Your task to perform on an android device: open app "Facebook" (install if not already installed) and enter user name: "resultants@gmail.com" and password: "earned" Image 0: 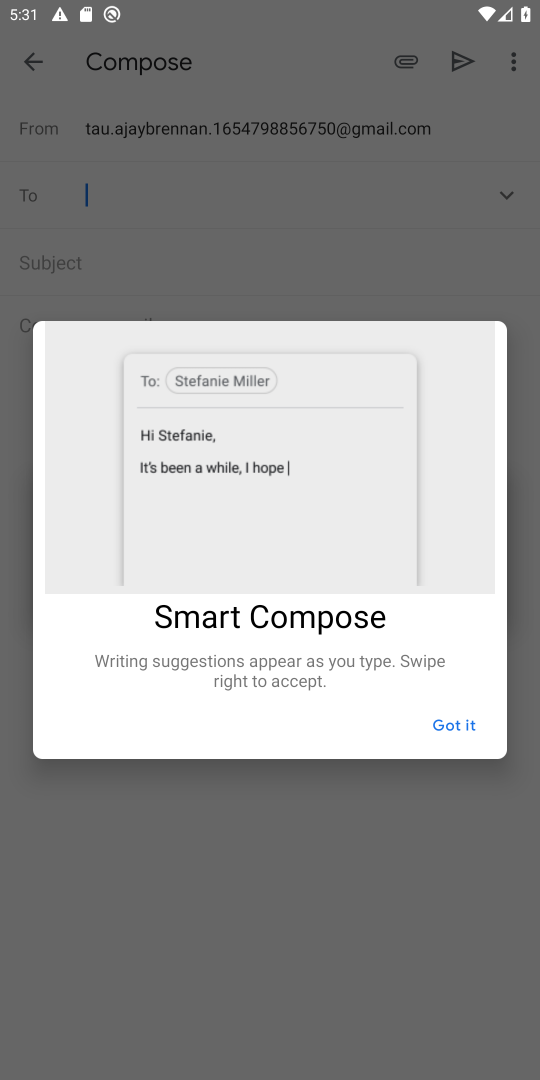
Step 0: press home button
Your task to perform on an android device: open app "Facebook" (install if not already installed) and enter user name: "resultants@gmail.com" and password: "earned" Image 1: 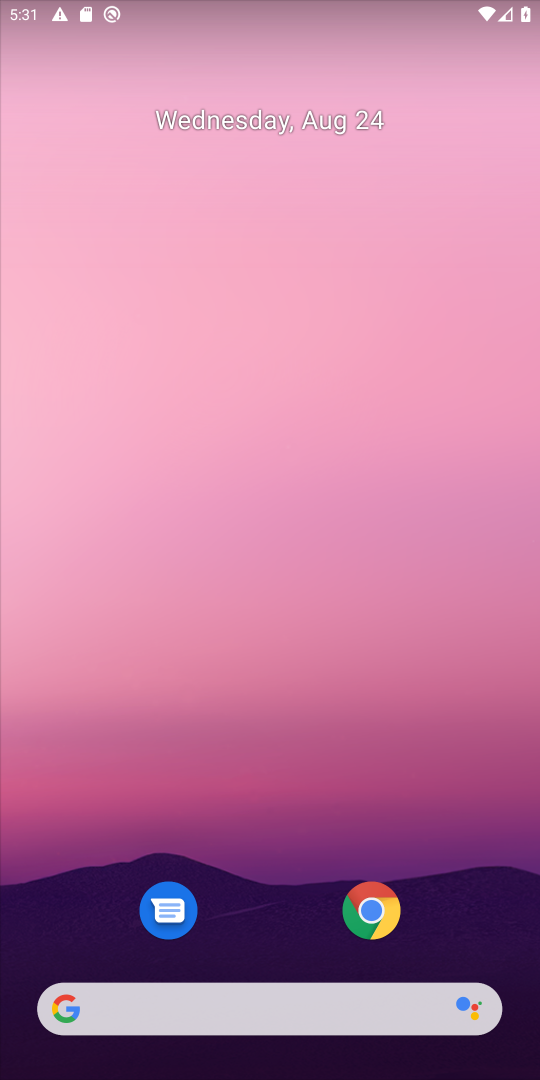
Step 1: drag from (285, 1039) to (261, 286)
Your task to perform on an android device: open app "Facebook" (install if not already installed) and enter user name: "resultants@gmail.com" and password: "earned" Image 2: 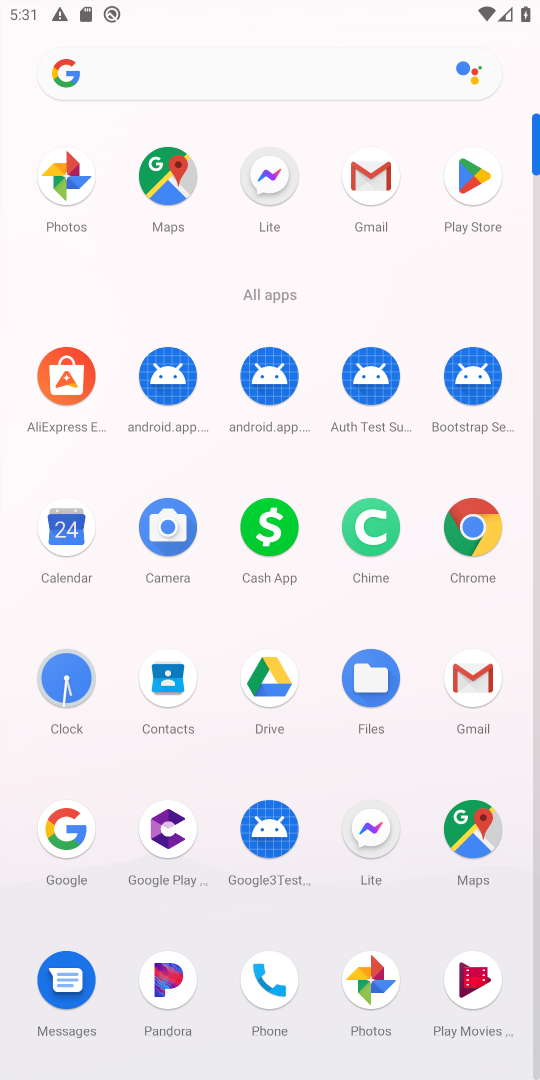
Step 2: click (447, 198)
Your task to perform on an android device: open app "Facebook" (install if not already installed) and enter user name: "resultants@gmail.com" and password: "earned" Image 3: 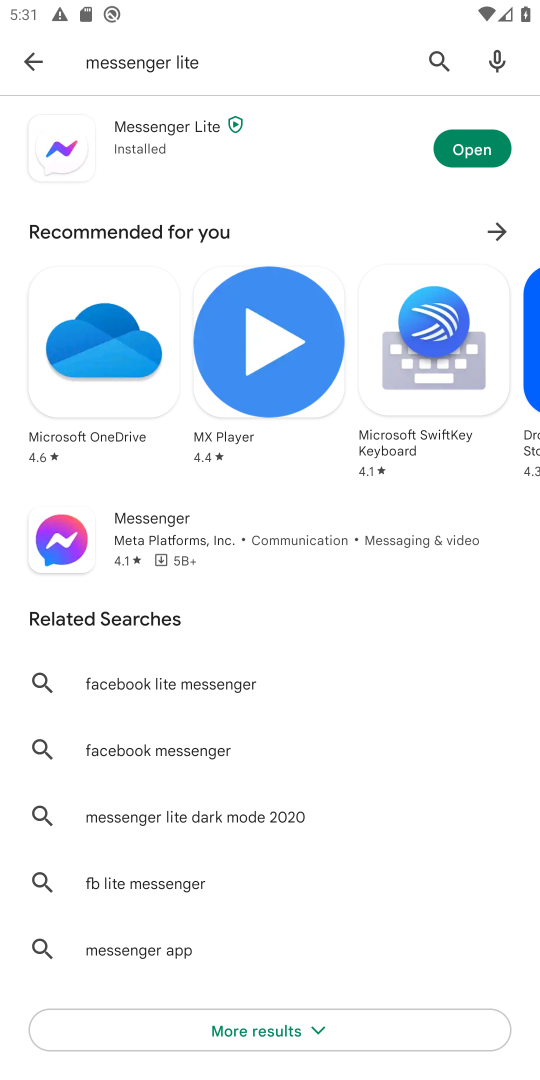
Step 3: click (424, 62)
Your task to perform on an android device: open app "Facebook" (install if not already installed) and enter user name: "resultants@gmail.com" and password: "earned" Image 4: 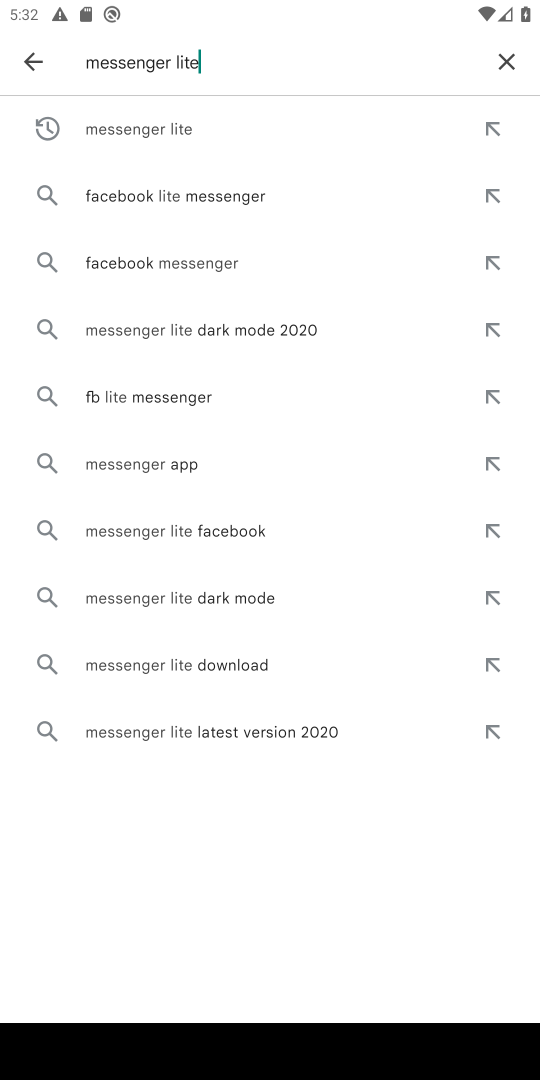
Step 4: click (512, 61)
Your task to perform on an android device: open app "Facebook" (install if not already installed) and enter user name: "resultants@gmail.com" and password: "earned" Image 5: 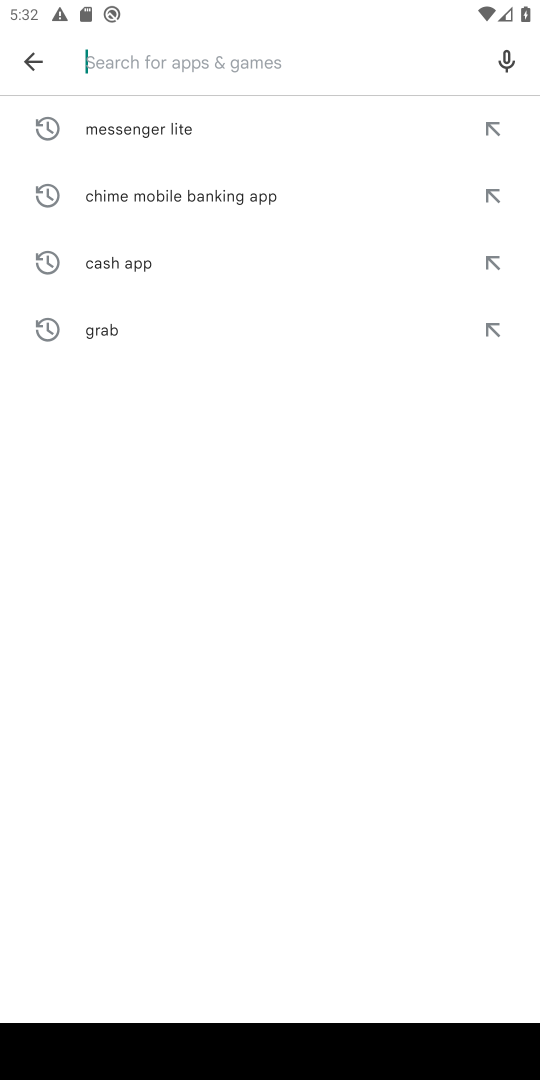
Step 5: type "facebook"
Your task to perform on an android device: open app "Facebook" (install if not already installed) and enter user name: "resultants@gmail.com" and password: "earned" Image 6: 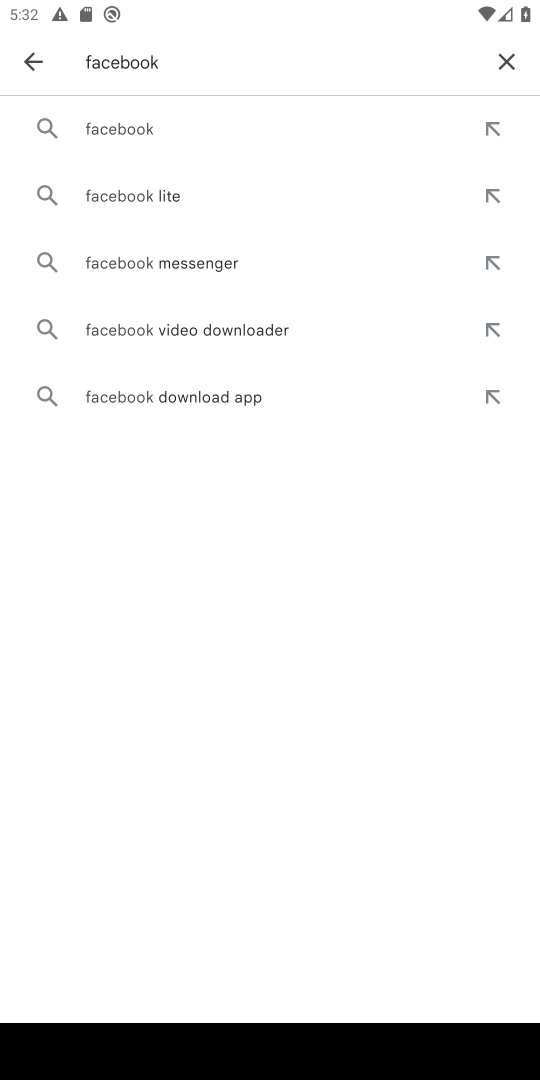
Step 6: click (129, 136)
Your task to perform on an android device: open app "Facebook" (install if not already installed) and enter user name: "resultants@gmail.com" and password: "earned" Image 7: 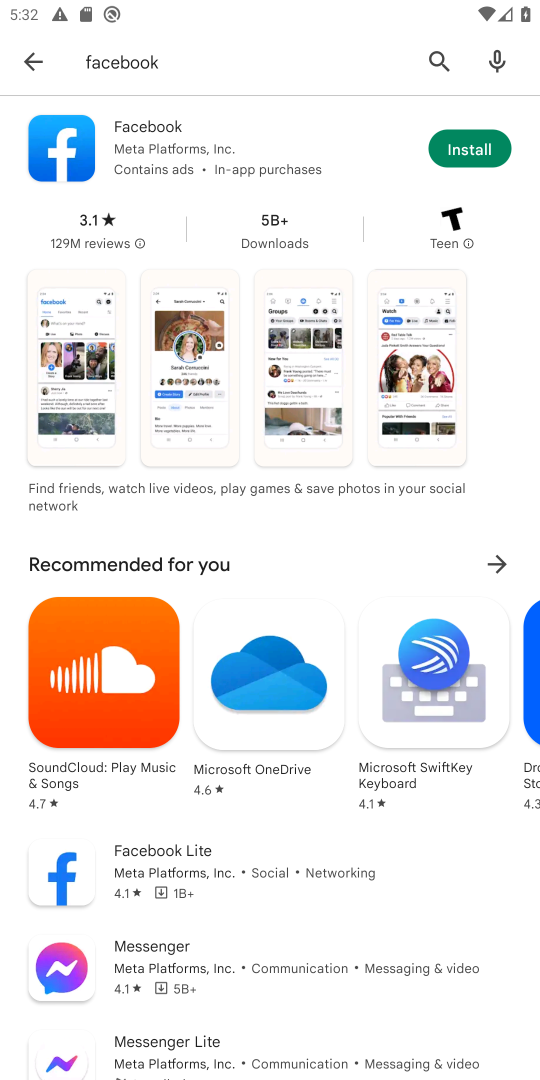
Step 7: click (471, 152)
Your task to perform on an android device: open app "Facebook" (install if not already installed) and enter user name: "resultants@gmail.com" and password: "earned" Image 8: 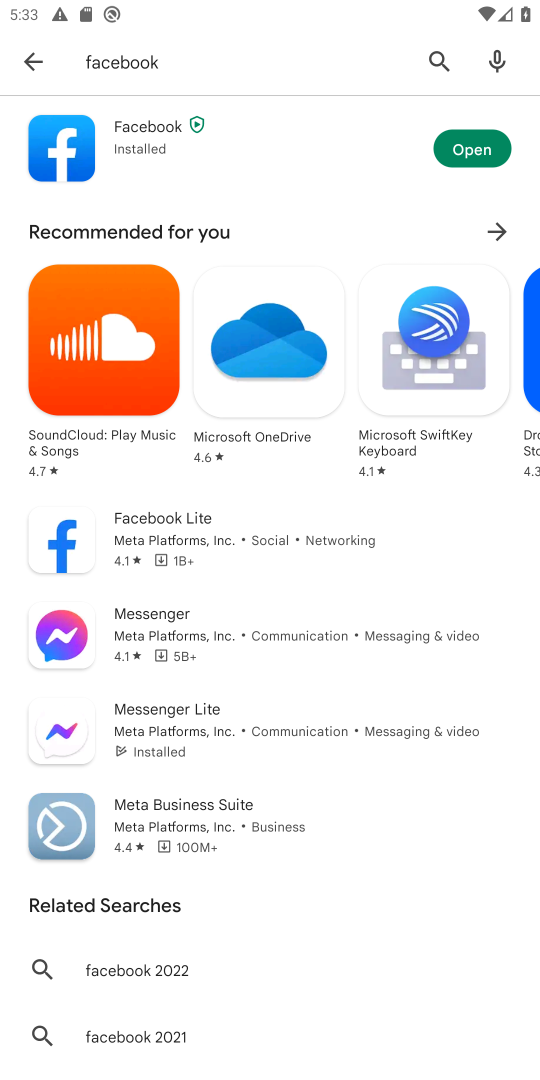
Step 8: click (440, 130)
Your task to perform on an android device: open app "Facebook" (install if not already installed) and enter user name: "resultants@gmail.com" and password: "earned" Image 9: 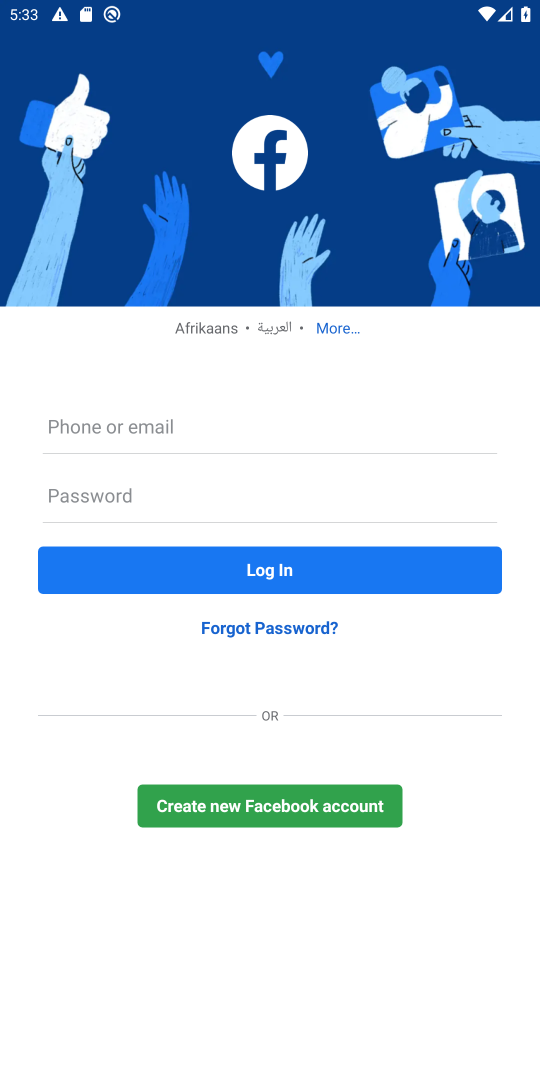
Step 9: click (130, 445)
Your task to perform on an android device: open app "Facebook" (install if not already installed) and enter user name: "resultants@gmail.com" and password: "earned" Image 10: 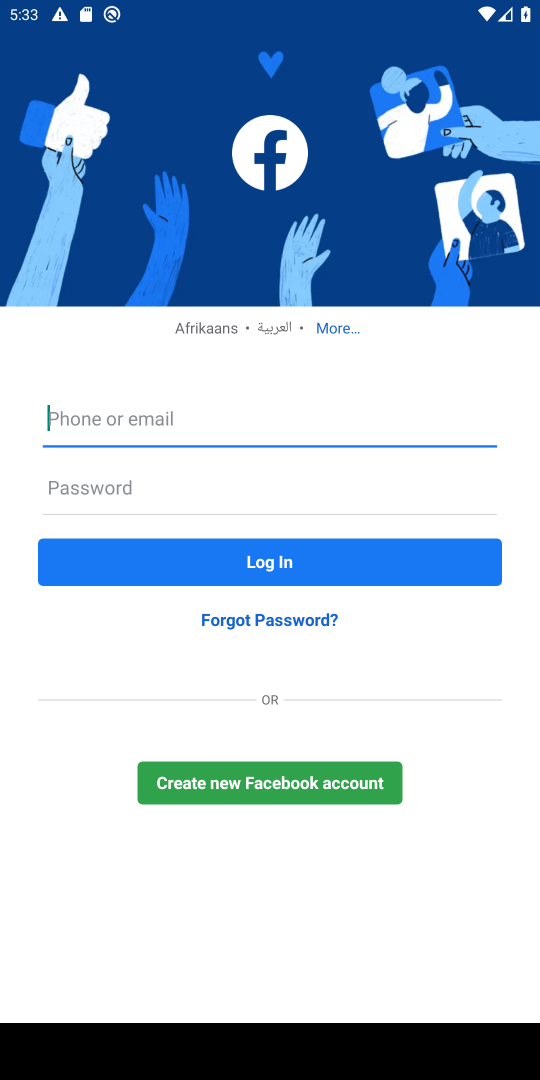
Step 10: click (142, 425)
Your task to perform on an android device: open app "Facebook" (install if not already installed) and enter user name: "resultants@gmail.com" and password: "earned" Image 11: 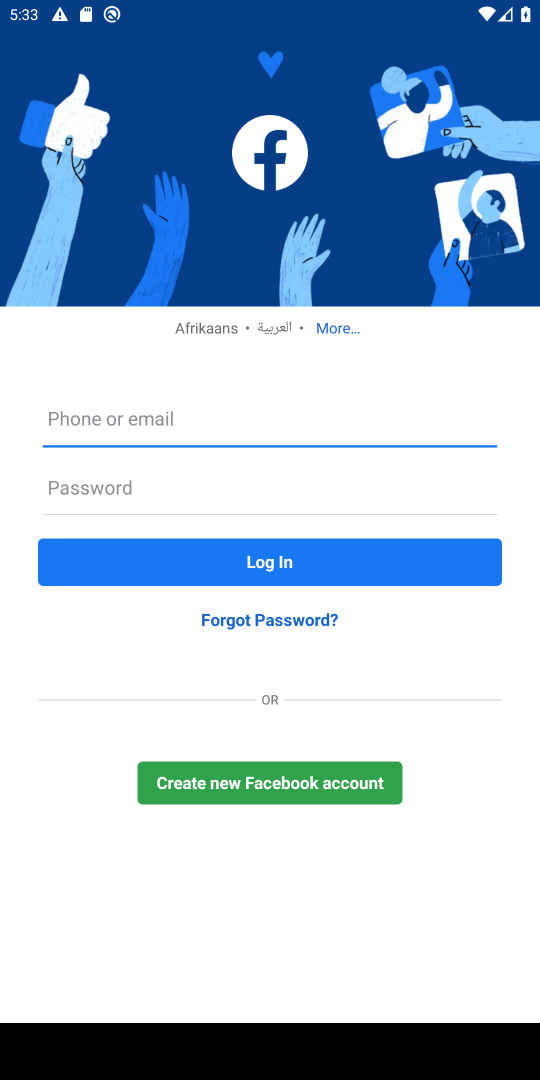
Step 11: type "resultants@gmail.com"
Your task to perform on an android device: open app "Facebook" (install if not already installed) and enter user name: "resultants@gmail.com" and password: "earned" Image 12: 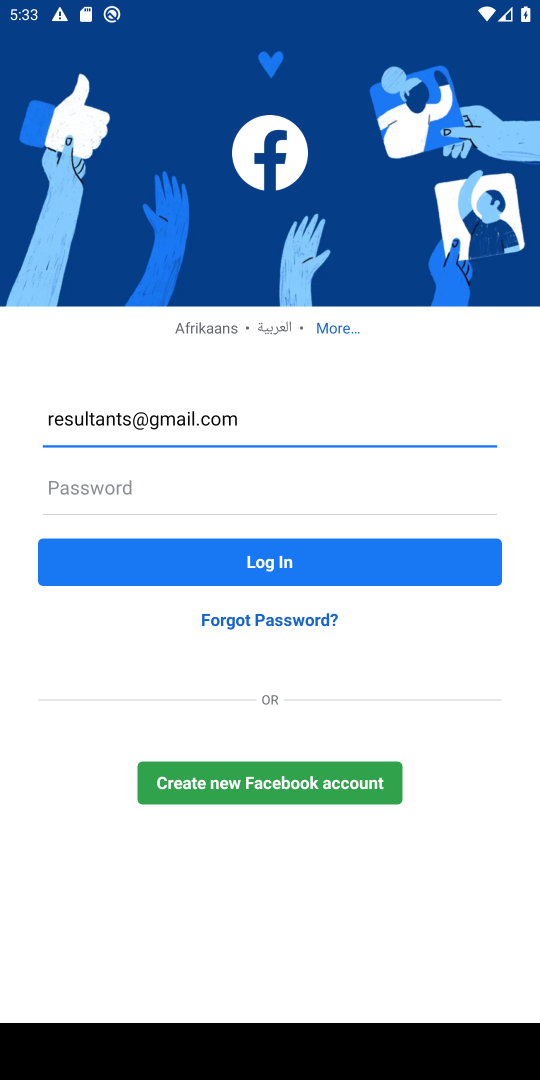
Step 12: click (197, 481)
Your task to perform on an android device: open app "Facebook" (install if not already installed) and enter user name: "resultants@gmail.com" and password: "earned" Image 13: 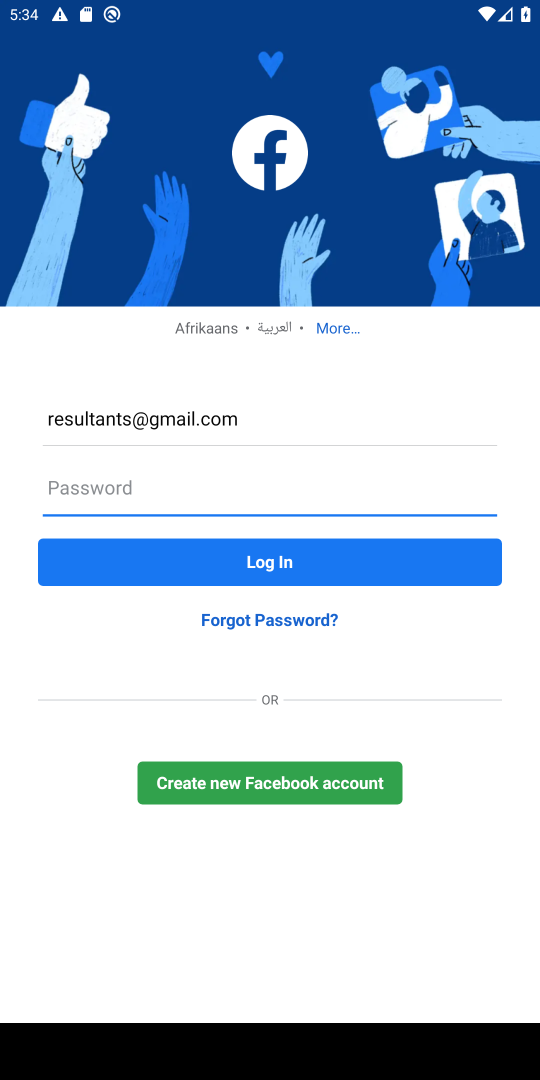
Step 13: type "earned"
Your task to perform on an android device: open app "Facebook" (install if not already installed) and enter user name: "resultants@gmail.com" and password: "earned" Image 14: 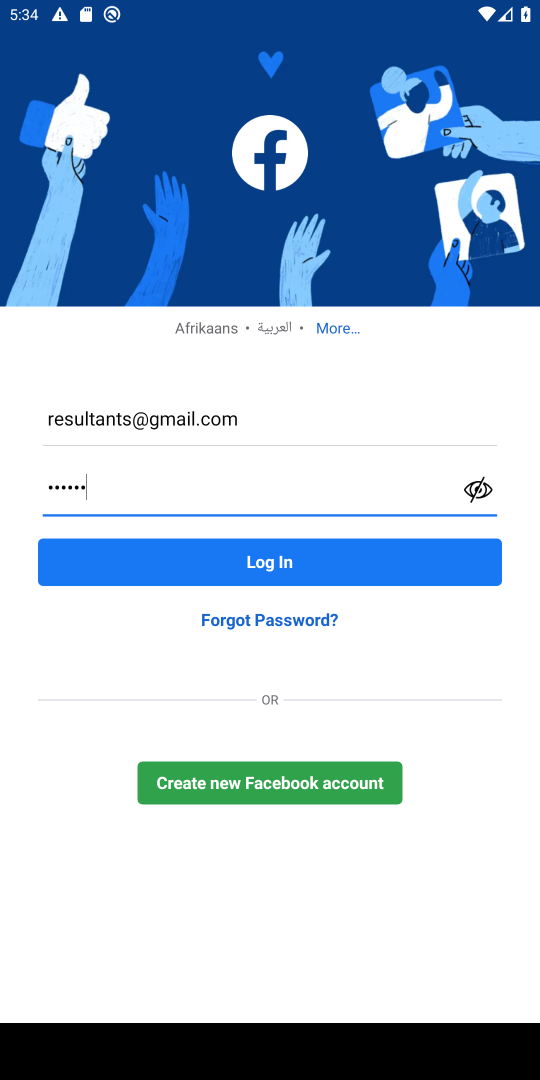
Step 14: task complete